Your task to perform on an android device: What's on my calendar today? Image 0: 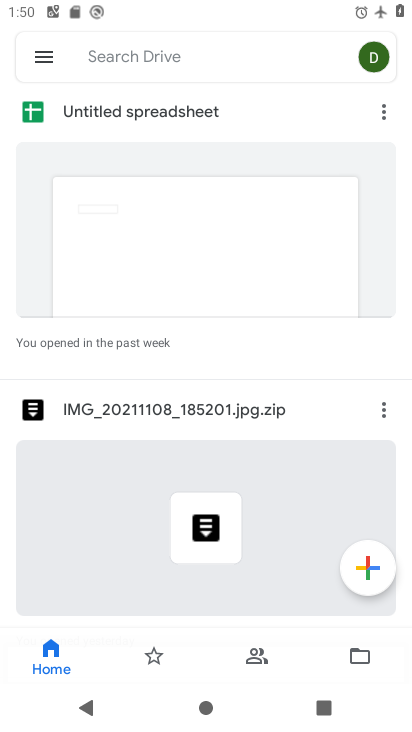
Step 0: press home button
Your task to perform on an android device: What's on my calendar today? Image 1: 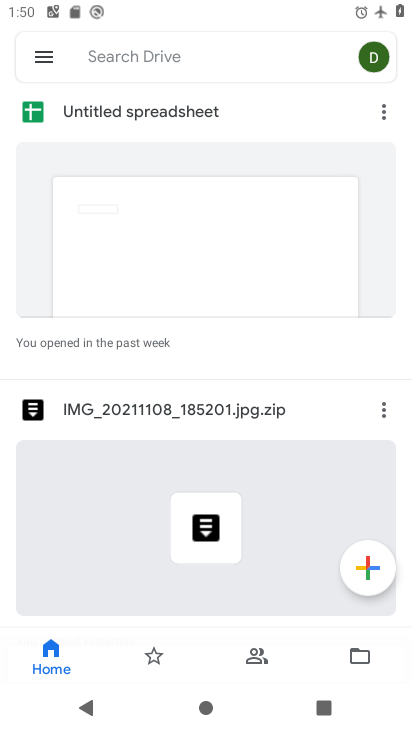
Step 1: press home button
Your task to perform on an android device: What's on my calendar today? Image 2: 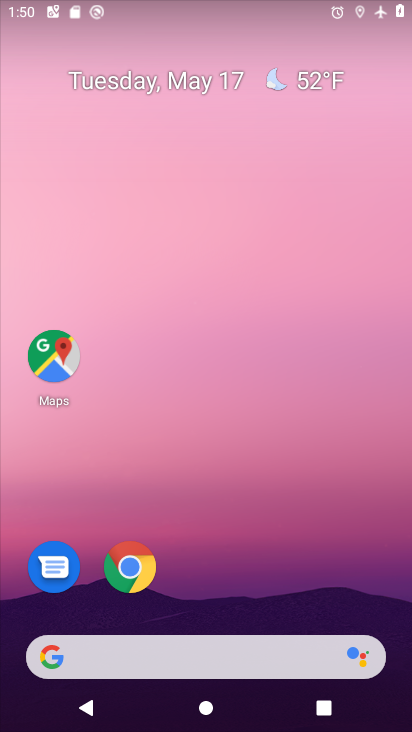
Step 2: drag from (241, 418) to (342, 36)
Your task to perform on an android device: What's on my calendar today? Image 3: 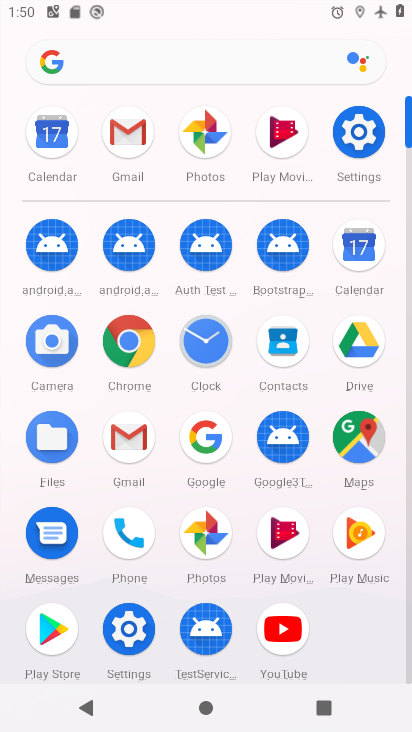
Step 3: click (369, 258)
Your task to perform on an android device: What's on my calendar today? Image 4: 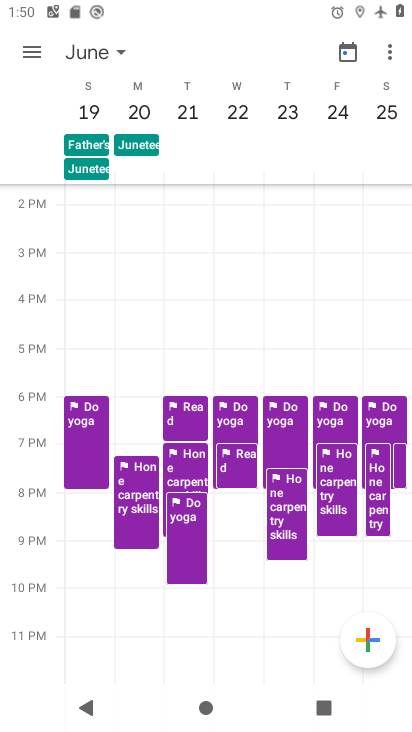
Step 4: click (83, 57)
Your task to perform on an android device: What's on my calendar today? Image 5: 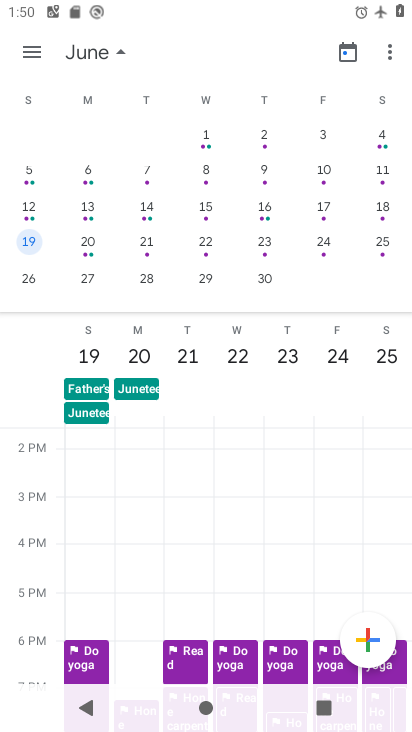
Step 5: click (100, 64)
Your task to perform on an android device: What's on my calendar today? Image 6: 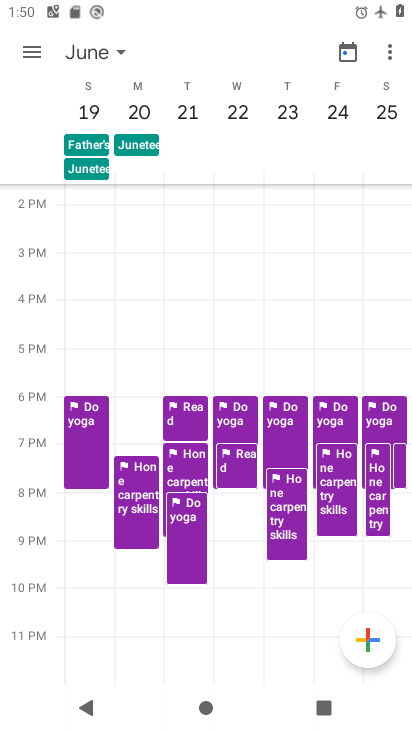
Step 6: click (134, 101)
Your task to perform on an android device: What's on my calendar today? Image 7: 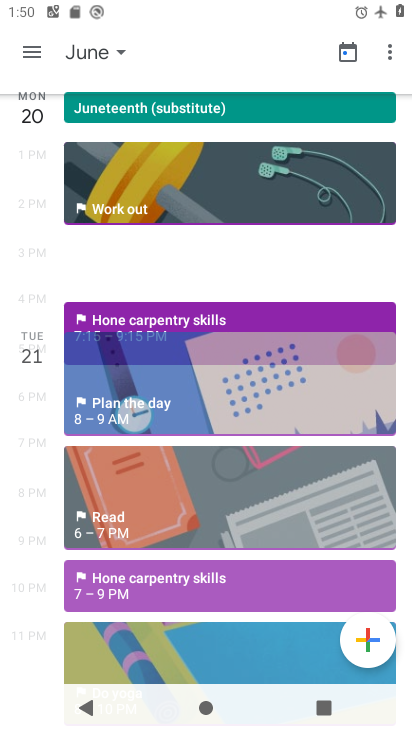
Step 7: click (85, 52)
Your task to perform on an android device: What's on my calendar today? Image 8: 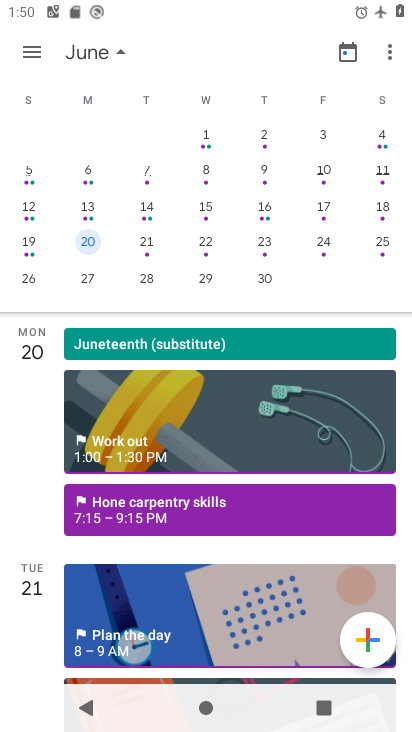
Step 8: click (98, 53)
Your task to perform on an android device: What's on my calendar today? Image 9: 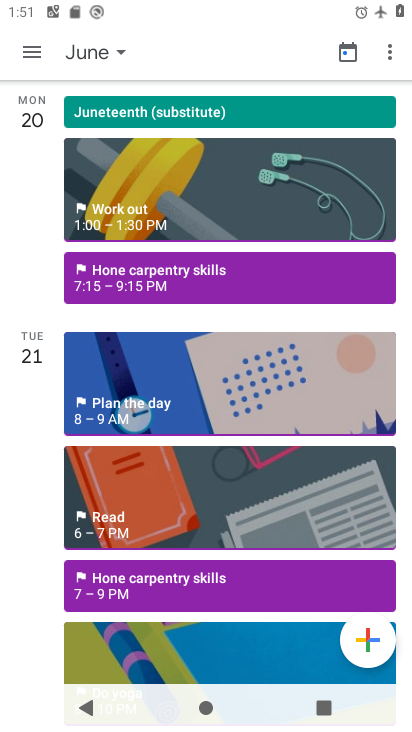
Step 9: click (88, 44)
Your task to perform on an android device: What's on my calendar today? Image 10: 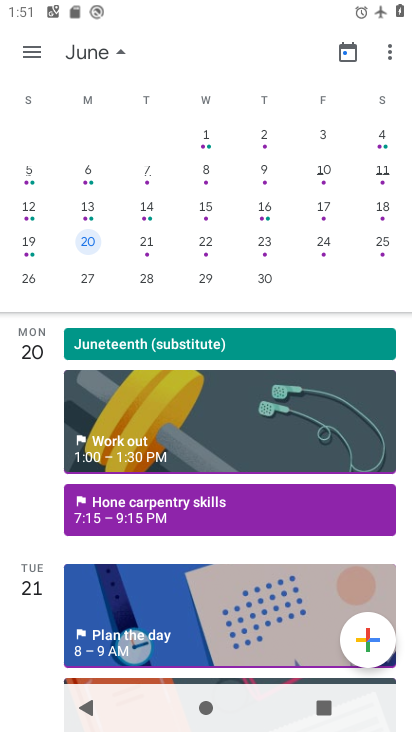
Step 10: drag from (360, 200) to (311, 232)
Your task to perform on an android device: What's on my calendar today? Image 11: 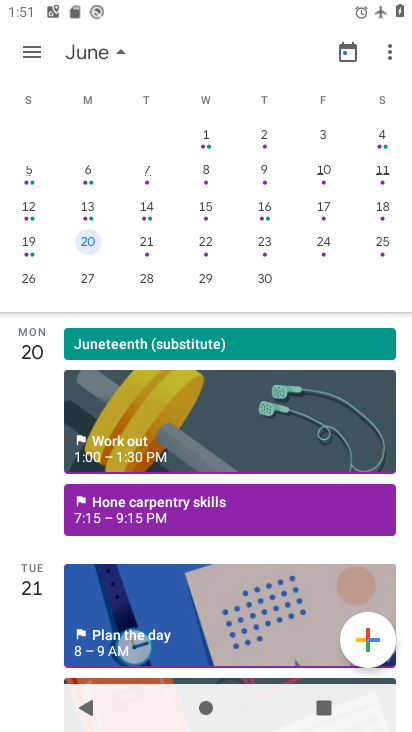
Step 11: drag from (56, 198) to (408, 200)
Your task to perform on an android device: What's on my calendar today? Image 12: 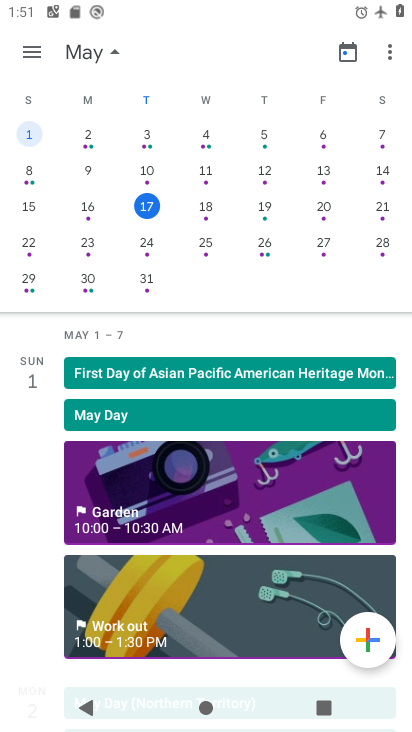
Step 12: click (149, 207)
Your task to perform on an android device: What's on my calendar today? Image 13: 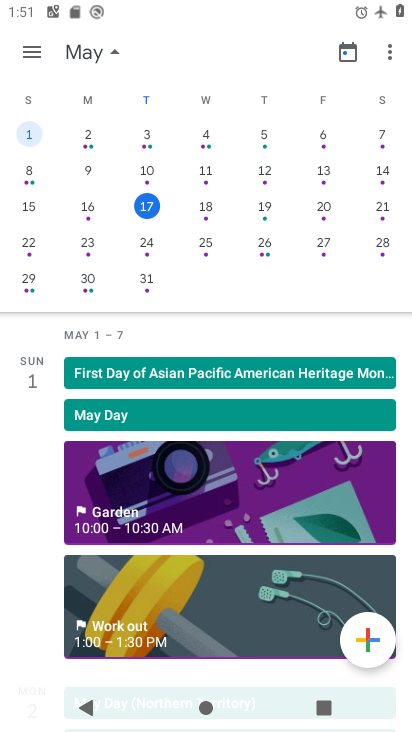
Step 13: click (149, 207)
Your task to perform on an android device: What's on my calendar today? Image 14: 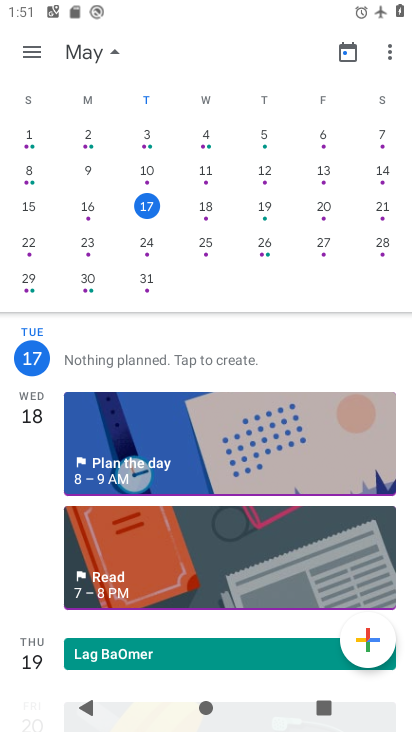
Step 14: task complete